Your task to perform on an android device: Go to location settings Image 0: 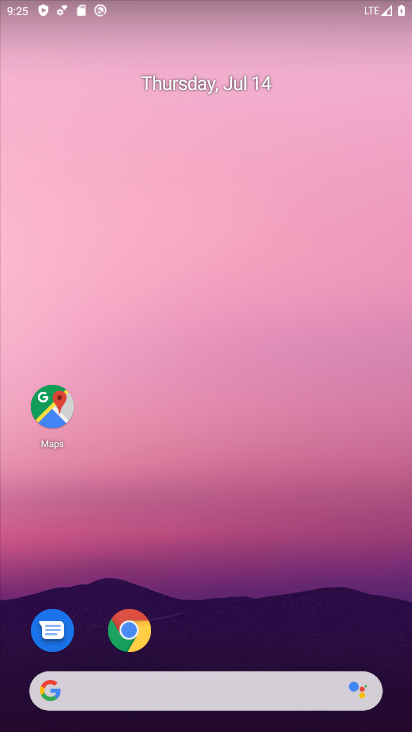
Step 0: drag from (233, 373) to (299, 105)
Your task to perform on an android device: Go to location settings Image 1: 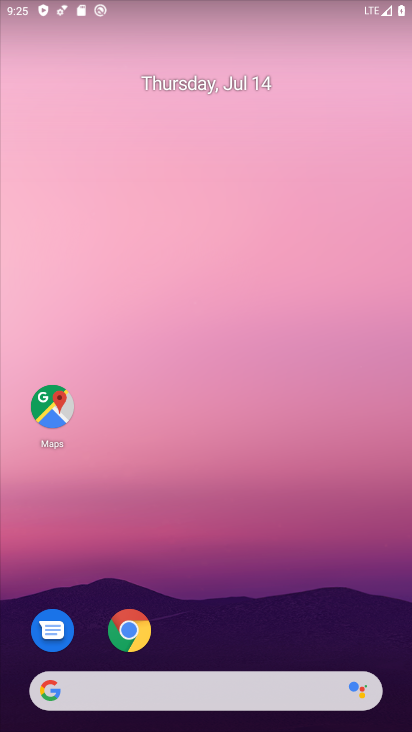
Step 1: drag from (236, 659) to (252, 230)
Your task to perform on an android device: Go to location settings Image 2: 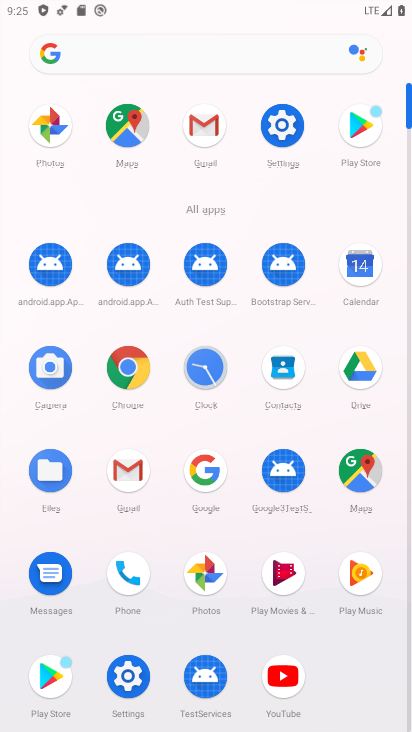
Step 2: click (133, 681)
Your task to perform on an android device: Go to location settings Image 3: 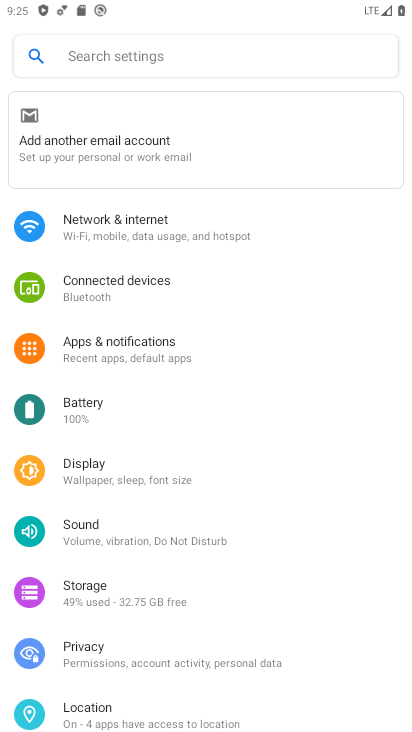
Step 3: click (117, 703)
Your task to perform on an android device: Go to location settings Image 4: 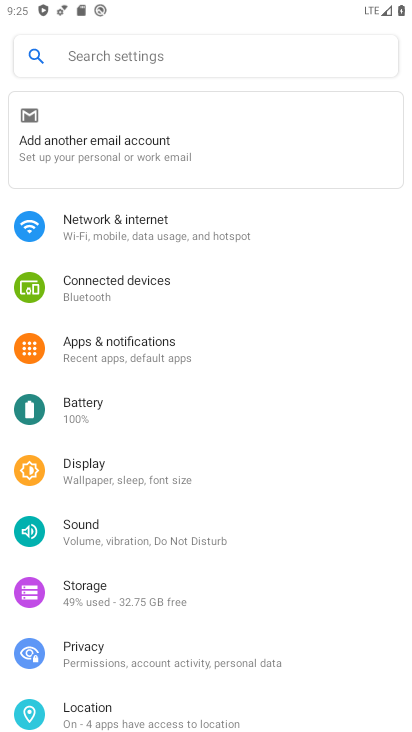
Step 4: click (103, 697)
Your task to perform on an android device: Go to location settings Image 5: 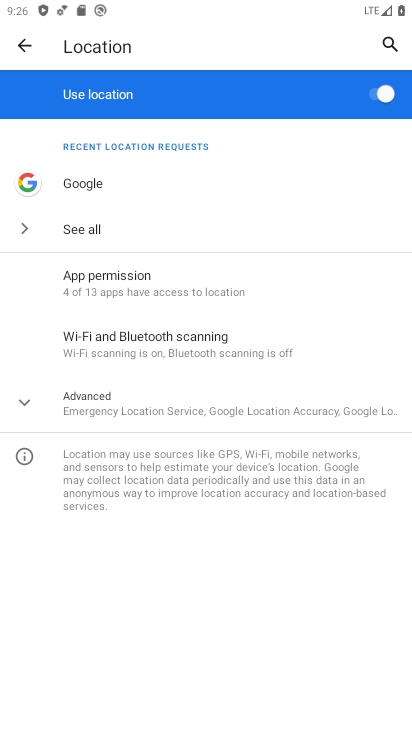
Step 5: task complete